Your task to perform on an android device: find photos in the google photos app Image 0: 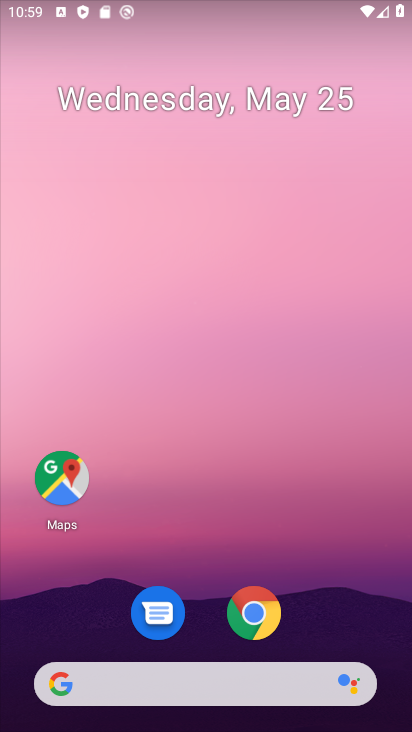
Step 0: drag from (242, 439) to (247, 38)
Your task to perform on an android device: find photos in the google photos app Image 1: 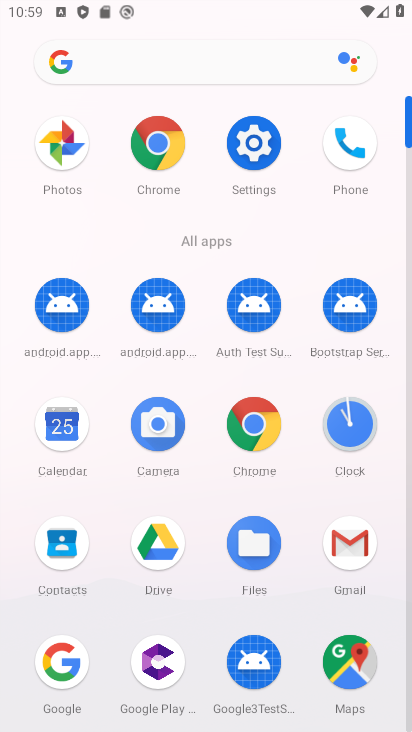
Step 1: click (68, 135)
Your task to perform on an android device: find photos in the google photos app Image 2: 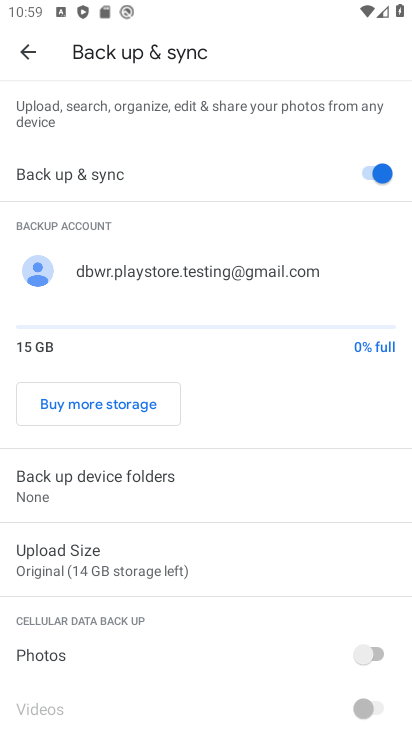
Step 2: click (25, 43)
Your task to perform on an android device: find photos in the google photos app Image 3: 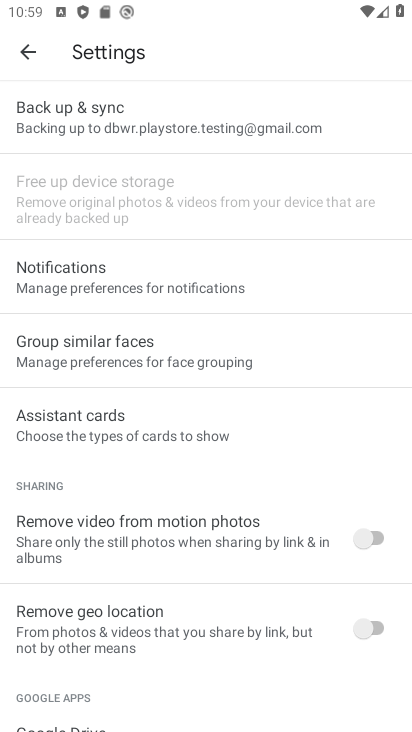
Step 3: click (25, 43)
Your task to perform on an android device: find photos in the google photos app Image 4: 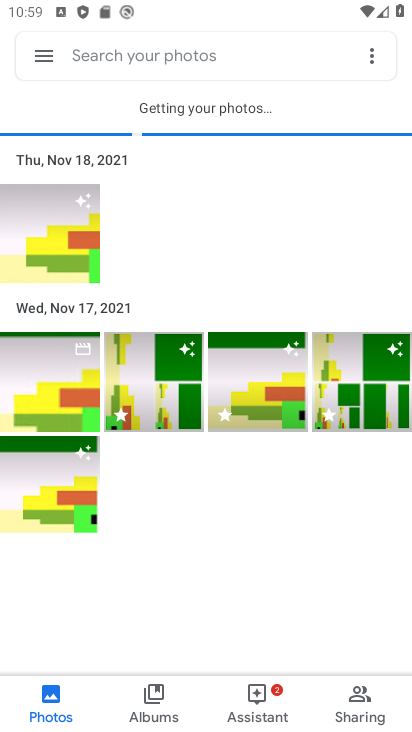
Step 4: click (48, 710)
Your task to perform on an android device: find photos in the google photos app Image 5: 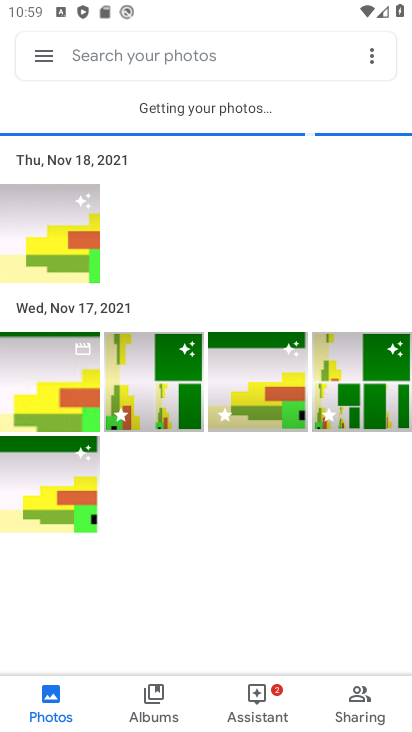
Step 5: task complete